Your task to perform on an android device: Is it going to rain tomorrow? Image 0: 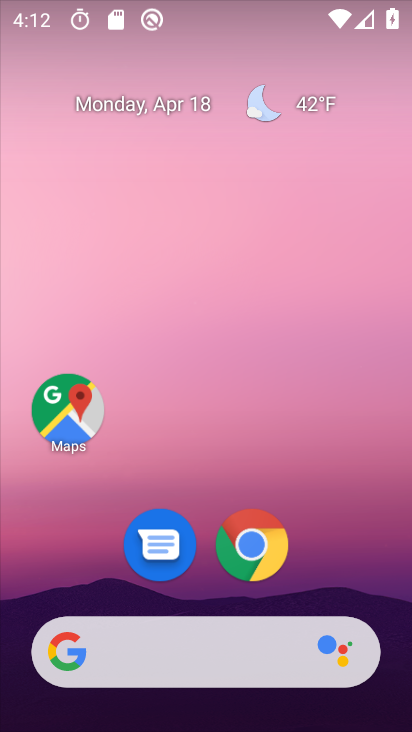
Step 0: click (232, 649)
Your task to perform on an android device: Is it going to rain tomorrow? Image 1: 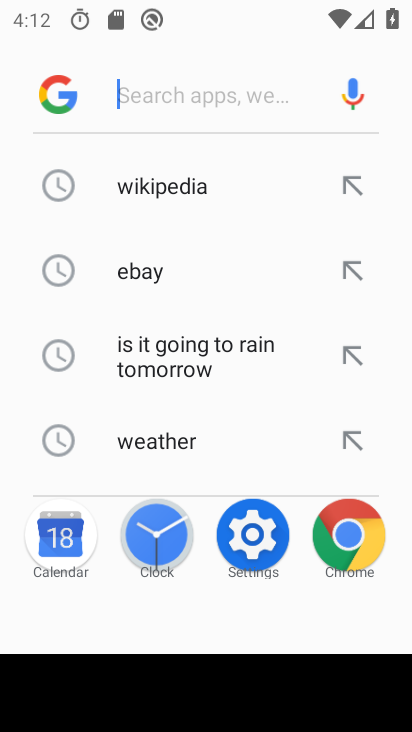
Step 1: click (180, 451)
Your task to perform on an android device: Is it going to rain tomorrow? Image 2: 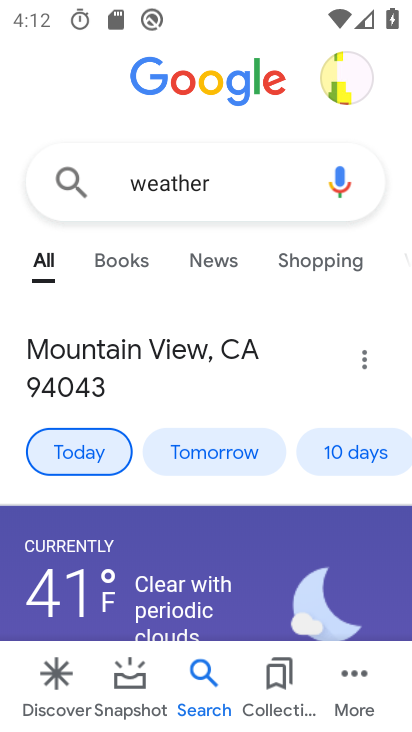
Step 2: click (180, 452)
Your task to perform on an android device: Is it going to rain tomorrow? Image 3: 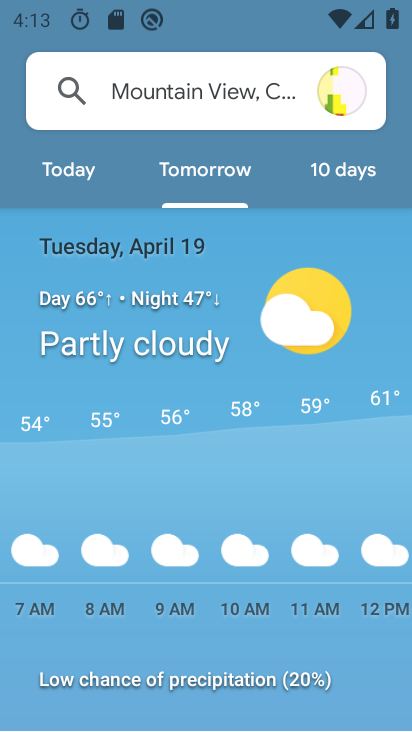
Step 3: task complete